Your task to perform on an android device: check google app version Image 0: 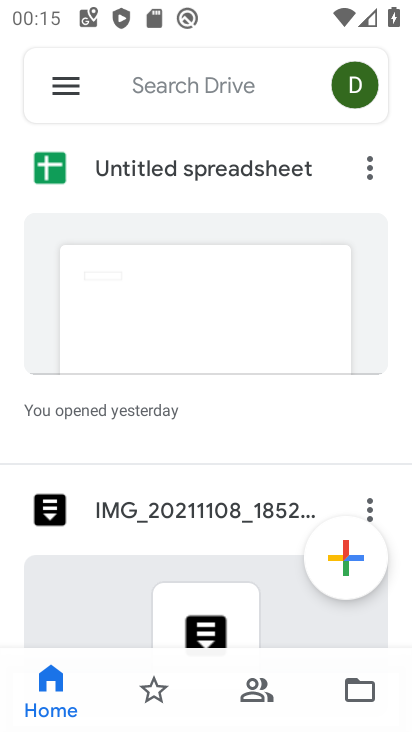
Step 0: press home button
Your task to perform on an android device: check google app version Image 1: 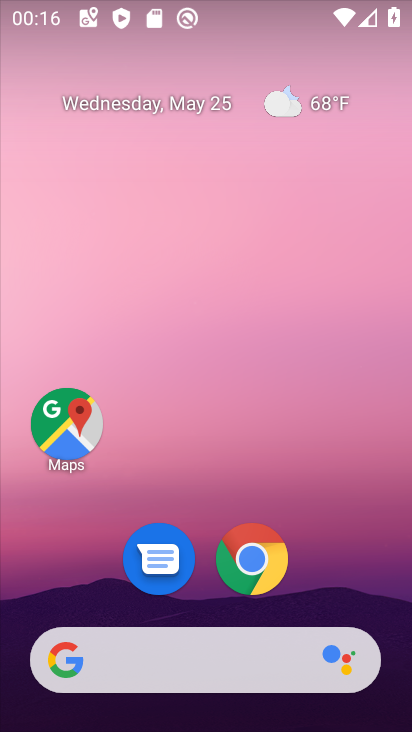
Step 1: click (251, 563)
Your task to perform on an android device: check google app version Image 2: 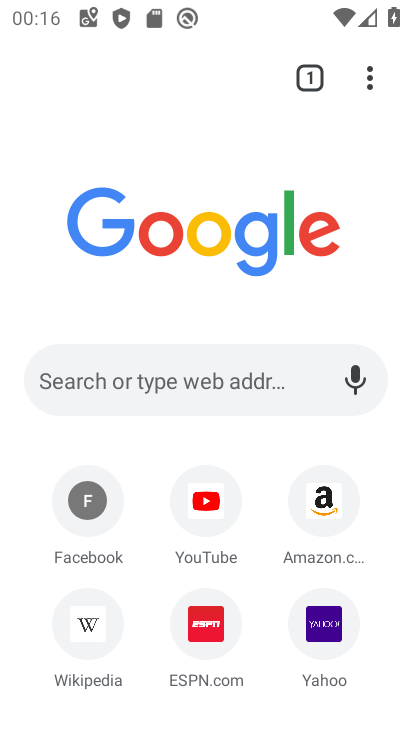
Step 2: click (368, 83)
Your task to perform on an android device: check google app version Image 3: 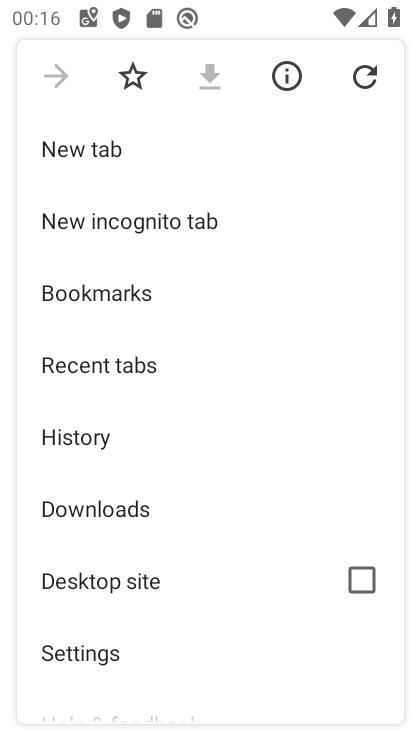
Step 3: click (85, 659)
Your task to perform on an android device: check google app version Image 4: 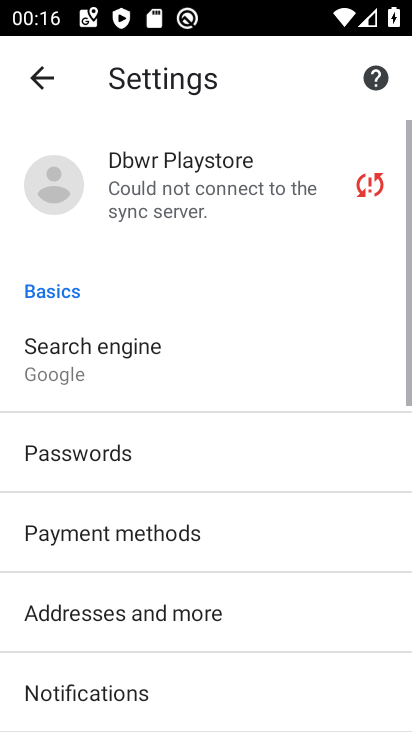
Step 4: drag from (214, 656) to (226, 205)
Your task to perform on an android device: check google app version Image 5: 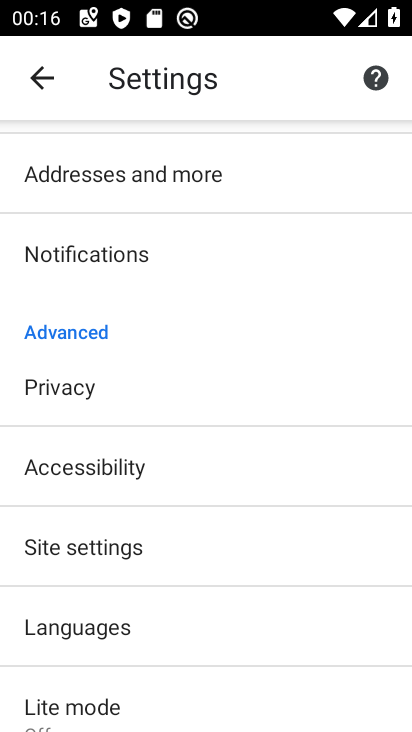
Step 5: drag from (259, 656) to (260, 249)
Your task to perform on an android device: check google app version Image 6: 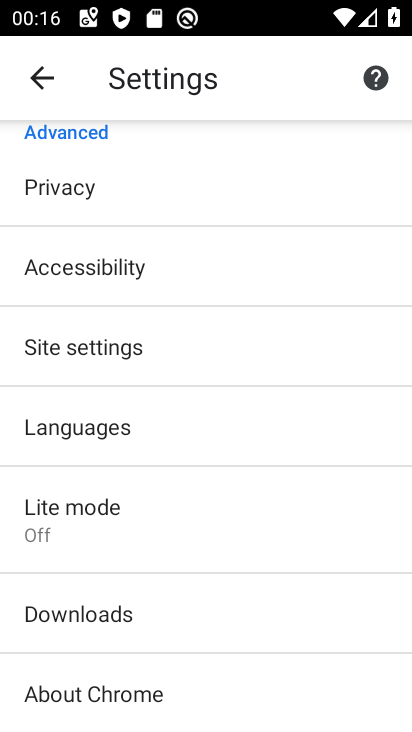
Step 6: click (96, 693)
Your task to perform on an android device: check google app version Image 7: 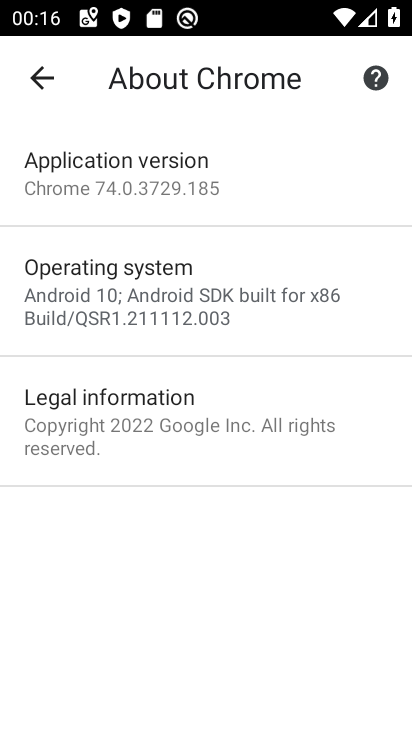
Step 7: click (110, 162)
Your task to perform on an android device: check google app version Image 8: 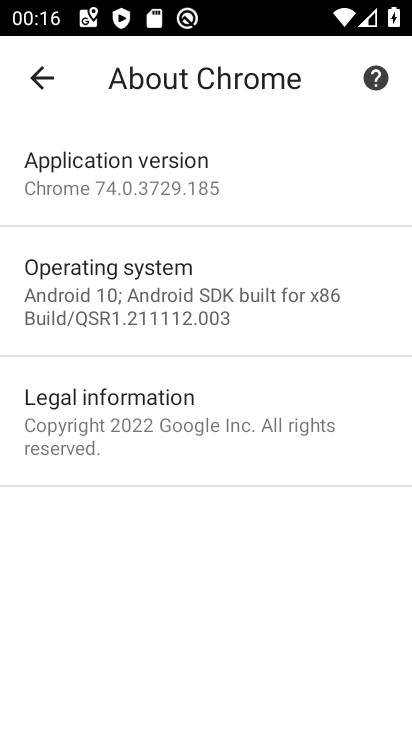
Step 8: task complete